Your task to perform on an android device: Open privacy settings Image 0: 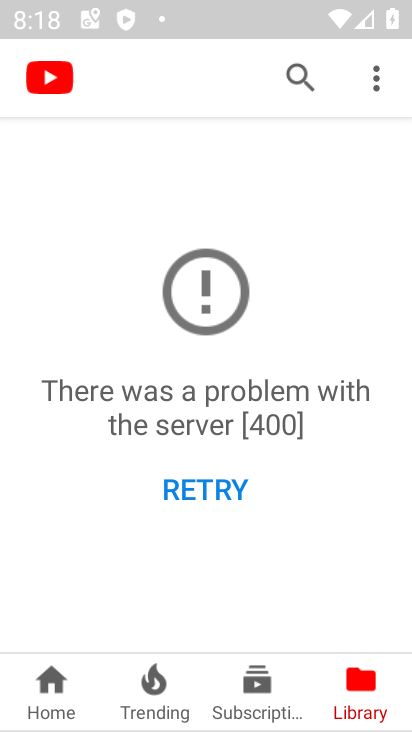
Step 0: press back button
Your task to perform on an android device: Open privacy settings Image 1: 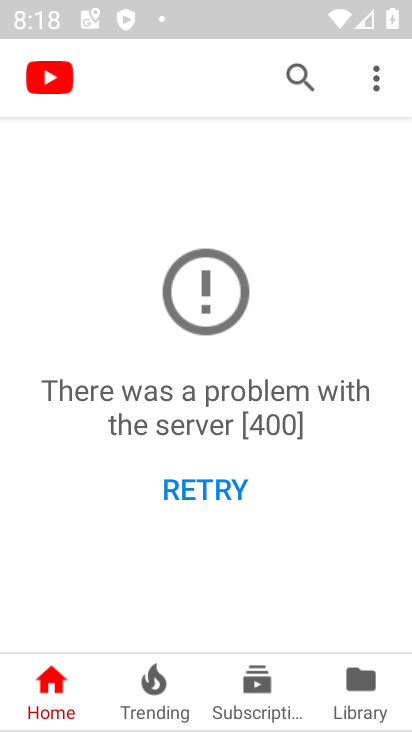
Step 1: press home button
Your task to perform on an android device: Open privacy settings Image 2: 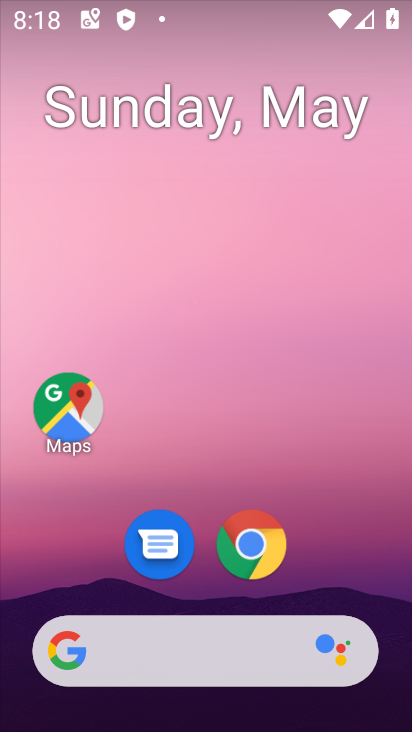
Step 2: drag from (324, 576) to (248, 24)
Your task to perform on an android device: Open privacy settings Image 3: 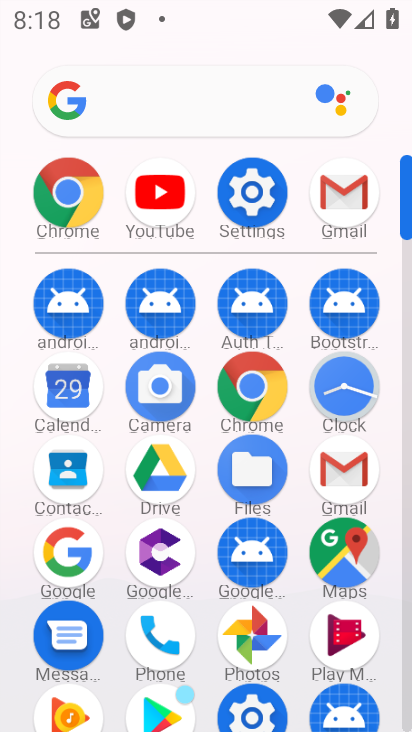
Step 3: drag from (13, 553) to (8, 219)
Your task to perform on an android device: Open privacy settings Image 4: 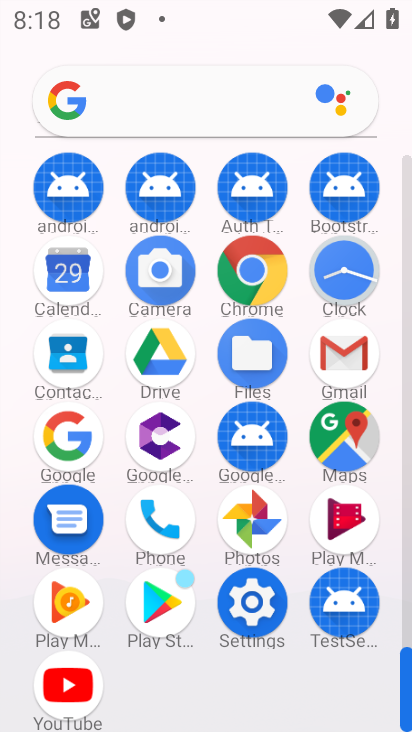
Step 4: click (251, 263)
Your task to perform on an android device: Open privacy settings Image 5: 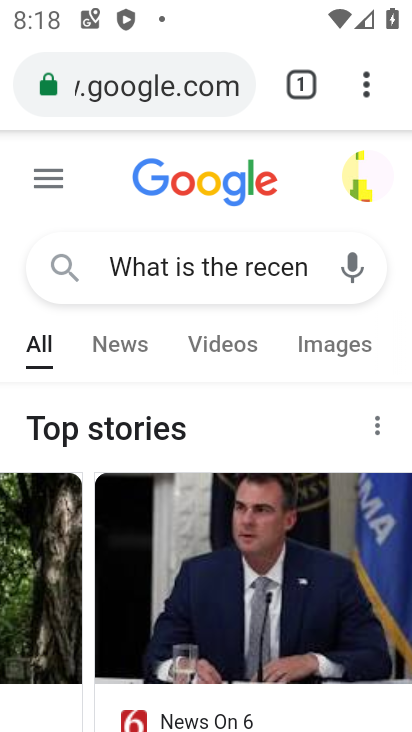
Step 5: drag from (364, 80) to (101, 592)
Your task to perform on an android device: Open privacy settings Image 6: 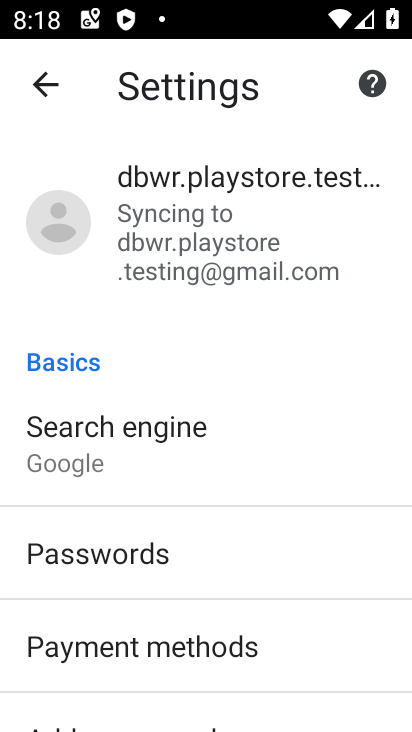
Step 6: drag from (247, 552) to (314, 179)
Your task to perform on an android device: Open privacy settings Image 7: 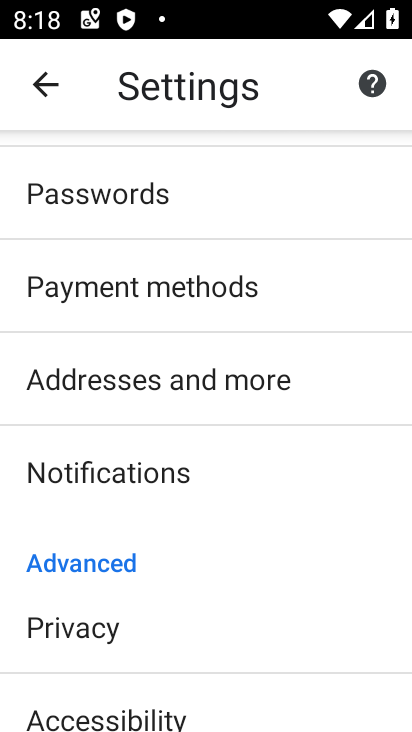
Step 7: click (139, 614)
Your task to perform on an android device: Open privacy settings Image 8: 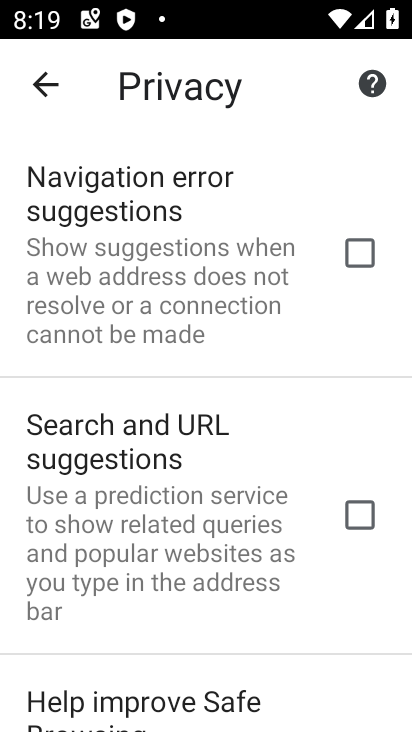
Step 8: task complete